Your task to perform on an android device: Open accessibility settings Image 0: 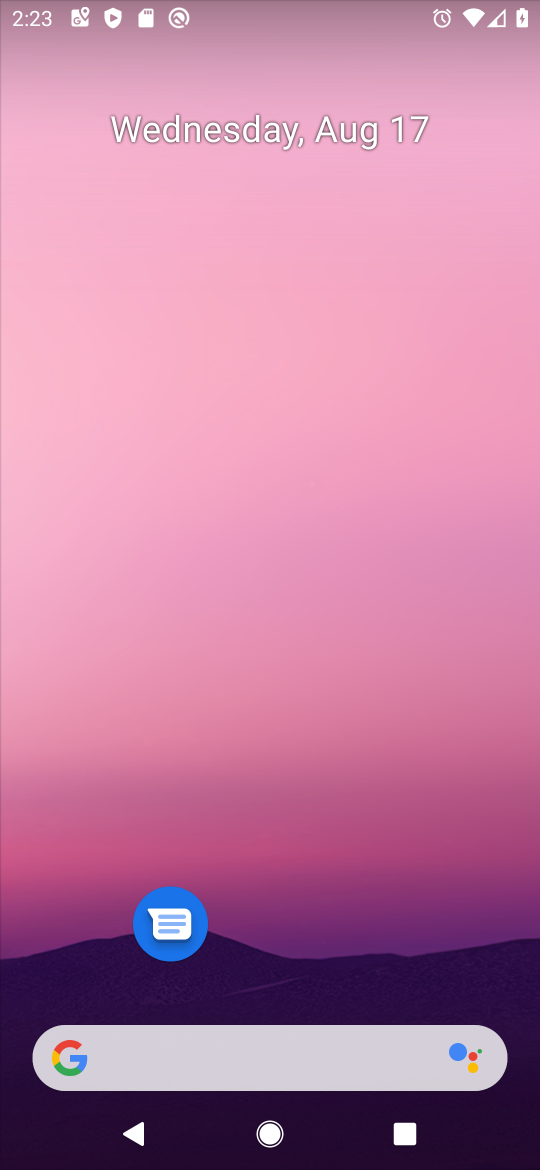
Step 0: drag from (218, 936) to (172, 1)
Your task to perform on an android device: Open accessibility settings Image 1: 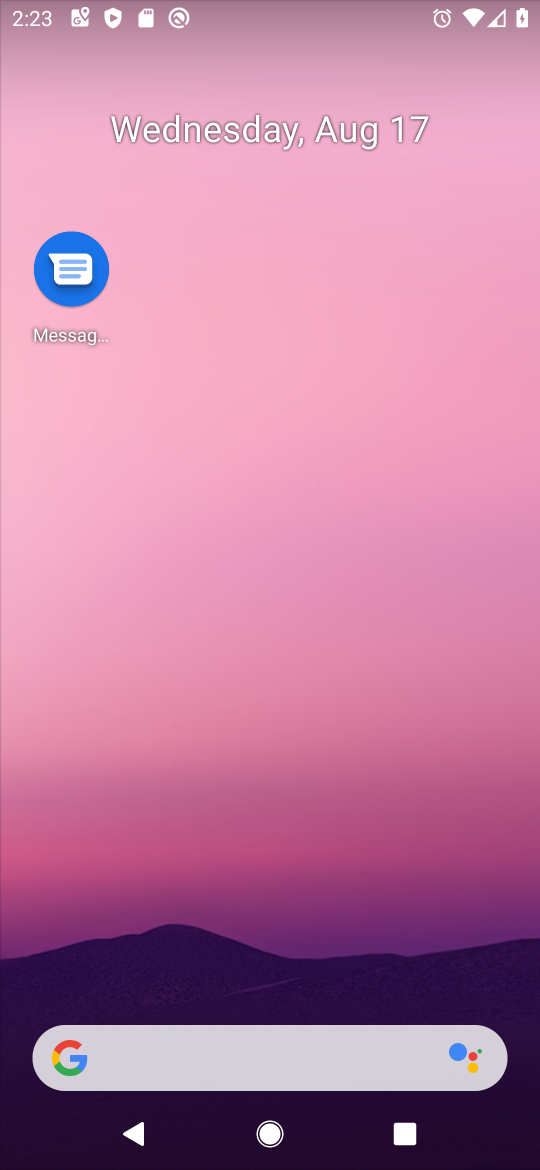
Step 1: drag from (302, 550) to (258, 106)
Your task to perform on an android device: Open accessibility settings Image 2: 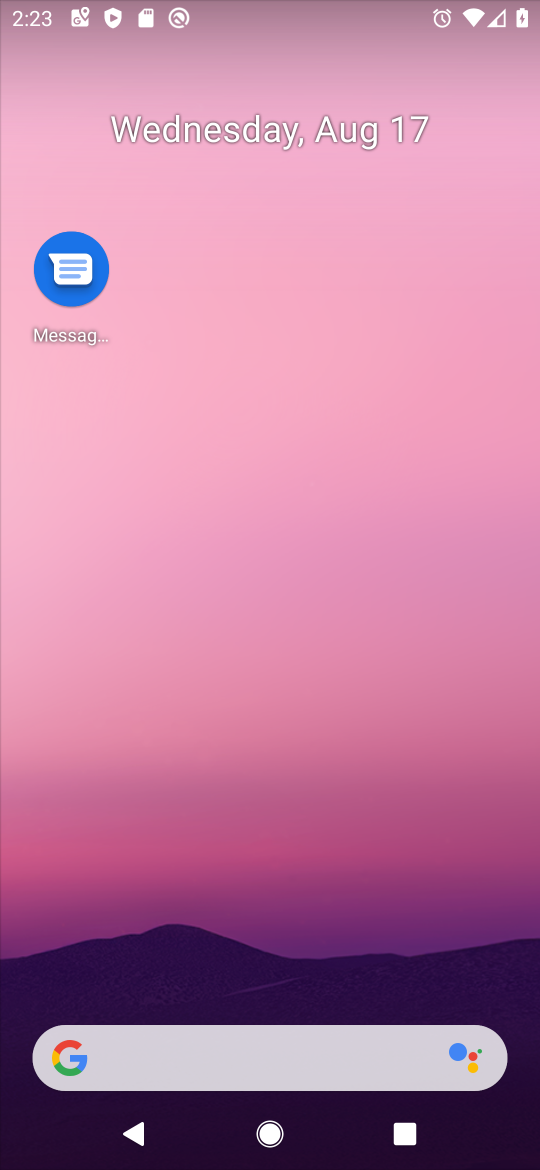
Step 2: drag from (185, 816) to (92, 21)
Your task to perform on an android device: Open accessibility settings Image 3: 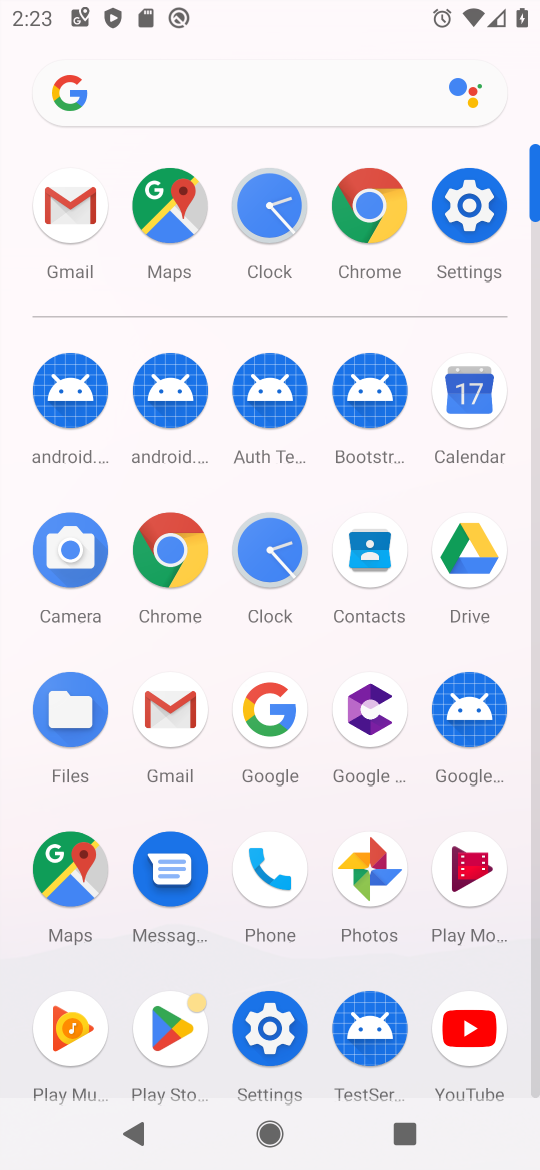
Step 3: click (461, 229)
Your task to perform on an android device: Open accessibility settings Image 4: 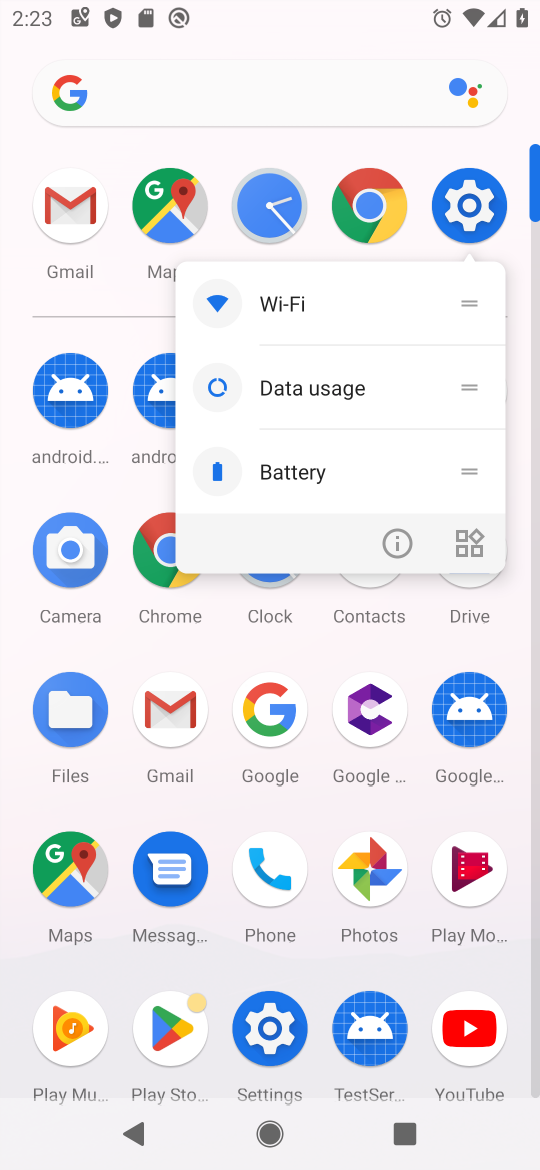
Step 4: click (461, 216)
Your task to perform on an android device: Open accessibility settings Image 5: 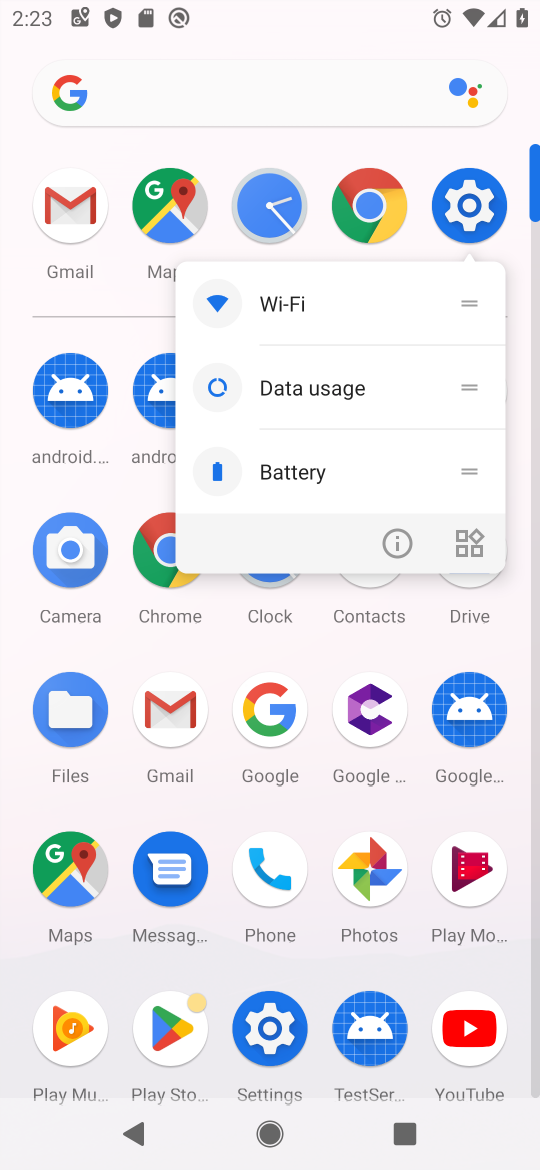
Step 5: click (470, 201)
Your task to perform on an android device: Open accessibility settings Image 6: 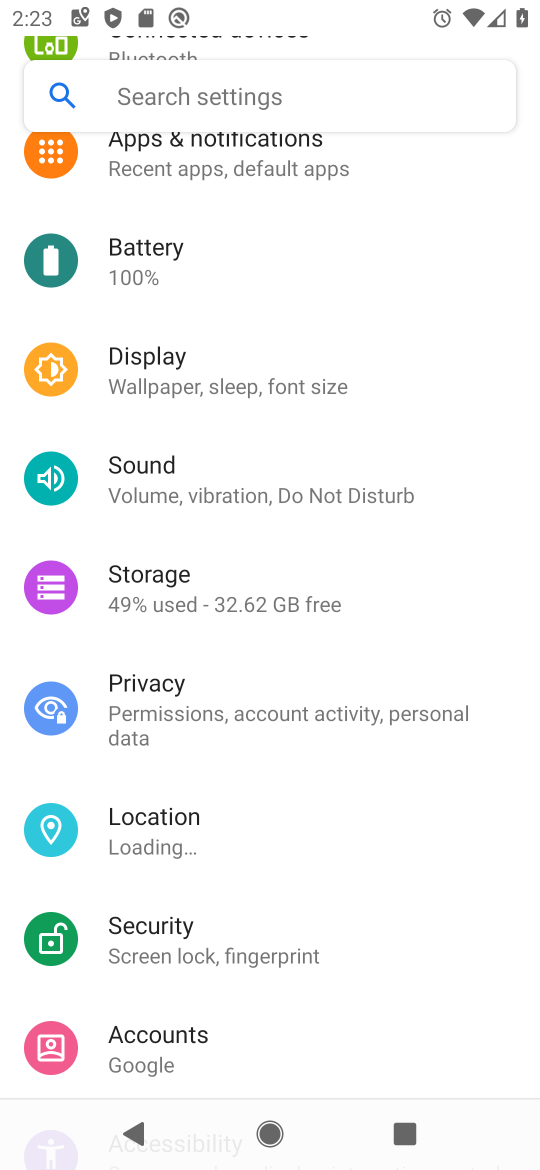
Step 6: drag from (219, 1056) to (130, 432)
Your task to perform on an android device: Open accessibility settings Image 7: 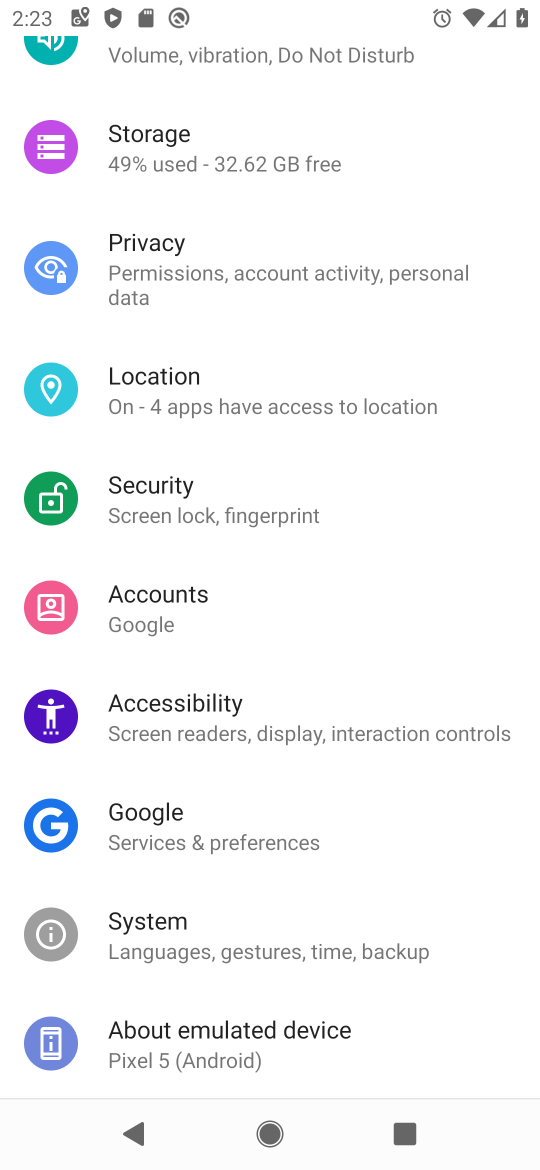
Step 7: click (138, 714)
Your task to perform on an android device: Open accessibility settings Image 8: 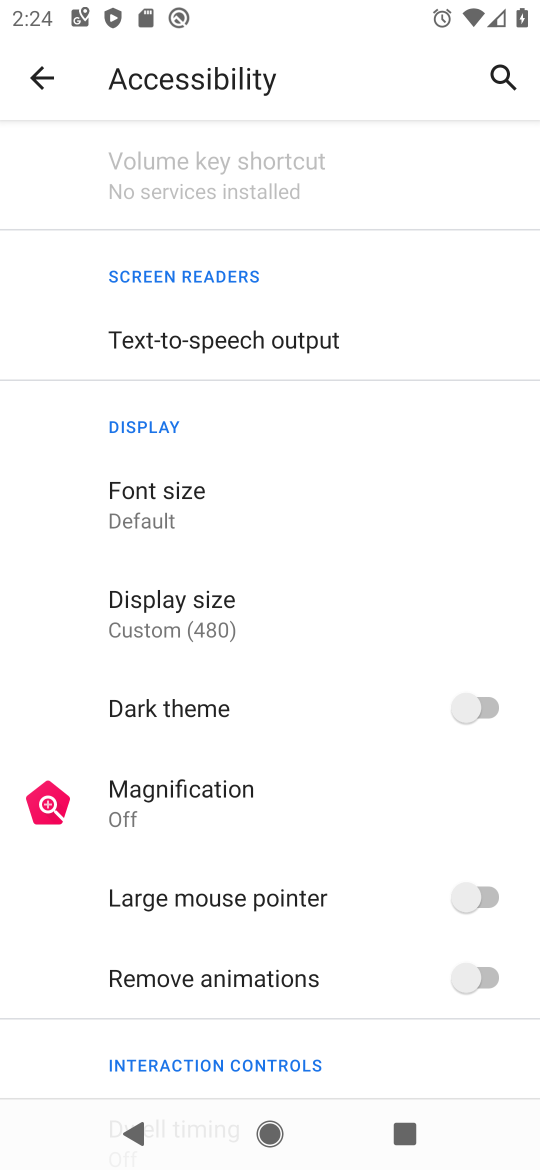
Step 8: task complete